Your task to perform on an android device: Find coffee shops on Maps Image 0: 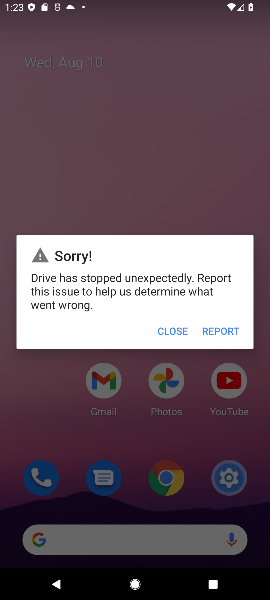
Step 0: press home button
Your task to perform on an android device: Find coffee shops on Maps Image 1: 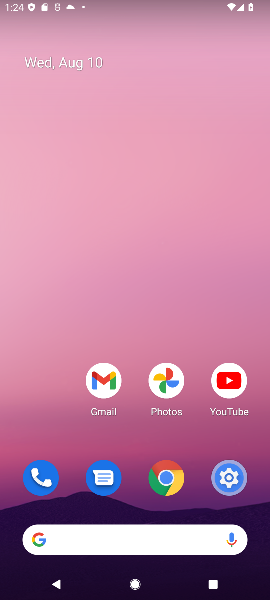
Step 1: drag from (98, 300) to (125, 47)
Your task to perform on an android device: Find coffee shops on Maps Image 2: 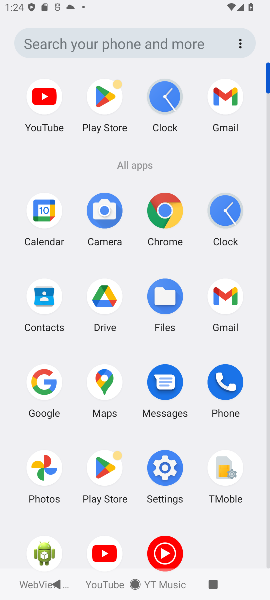
Step 2: click (99, 393)
Your task to perform on an android device: Find coffee shops on Maps Image 3: 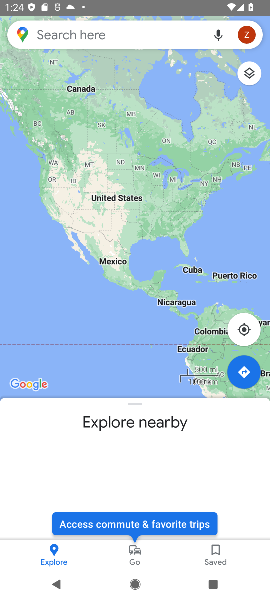
Step 3: click (153, 29)
Your task to perform on an android device: Find coffee shops on Maps Image 4: 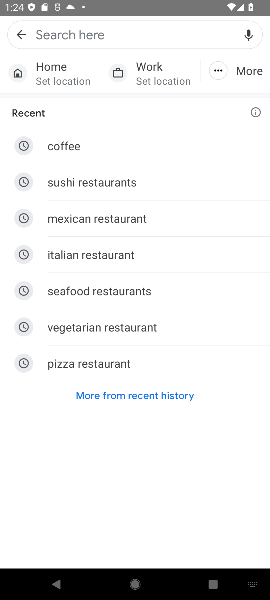
Step 4: type "c"
Your task to perform on an android device: Find coffee shops on Maps Image 5: 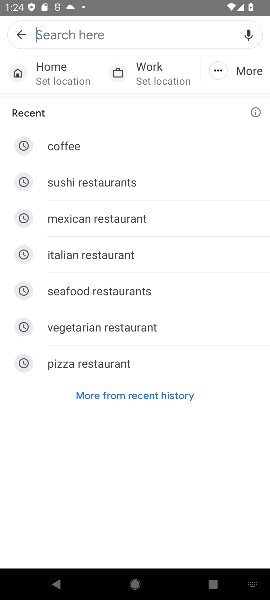
Step 5: click (89, 139)
Your task to perform on an android device: Find coffee shops on Maps Image 6: 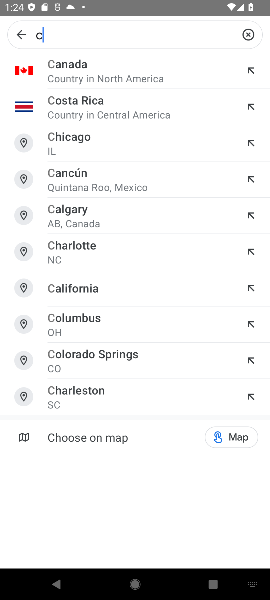
Step 6: click (46, 30)
Your task to perform on an android device: Find coffee shops on Maps Image 7: 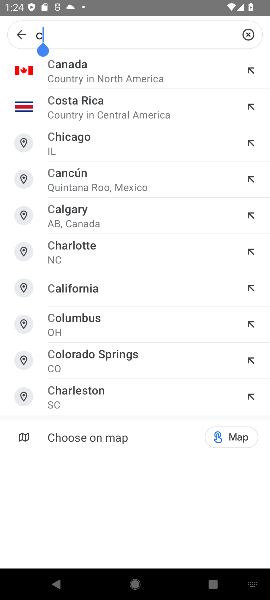
Step 7: click (20, 36)
Your task to perform on an android device: Find coffee shops on Maps Image 8: 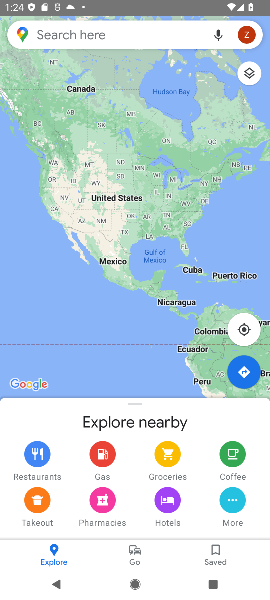
Step 8: click (120, 32)
Your task to perform on an android device: Find coffee shops on Maps Image 9: 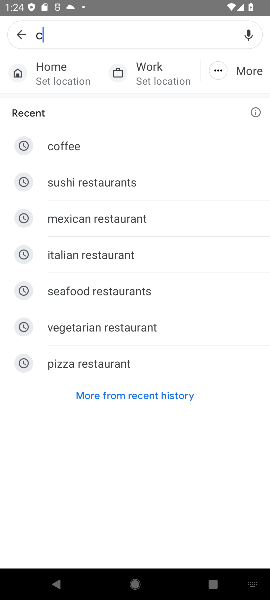
Step 9: click (71, 148)
Your task to perform on an android device: Find coffee shops on Maps Image 10: 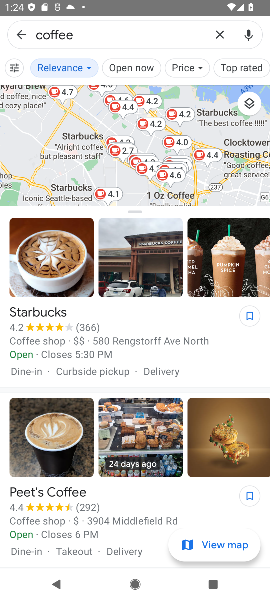
Step 10: task complete